Your task to perform on an android device: Open Maps and search for coffee Image 0: 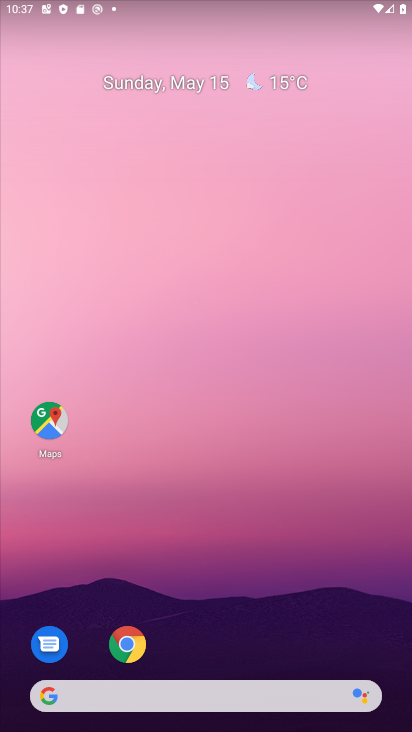
Step 0: click (44, 433)
Your task to perform on an android device: Open Maps and search for coffee Image 1: 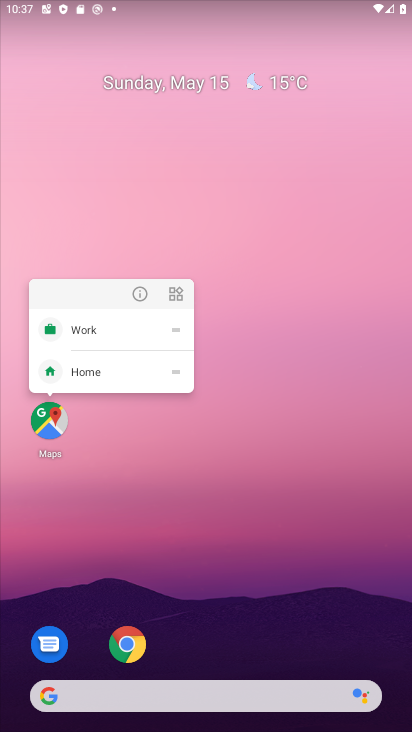
Step 1: click (43, 407)
Your task to perform on an android device: Open Maps and search for coffee Image 2: 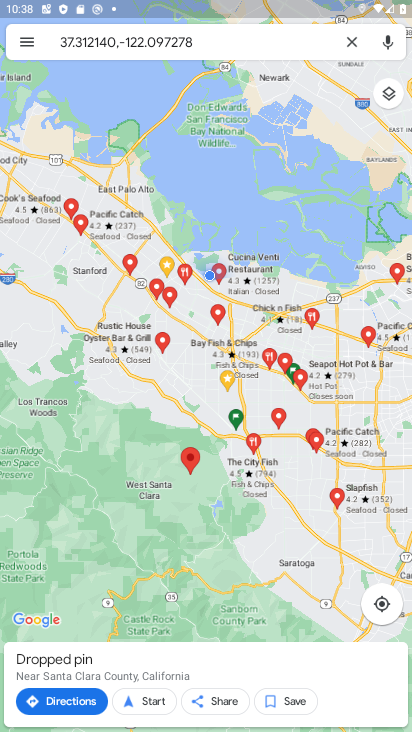
Step 2: click (352, 43)
Your task to perform on an android device: Open Maps and search for coffee Image 3: 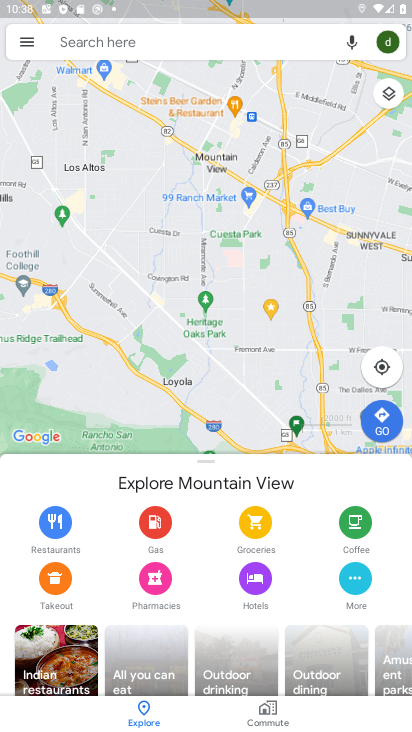
Step 3: click (134, 41)
Your task to perform on an android device: Open Maps and search for coffee Image 4: 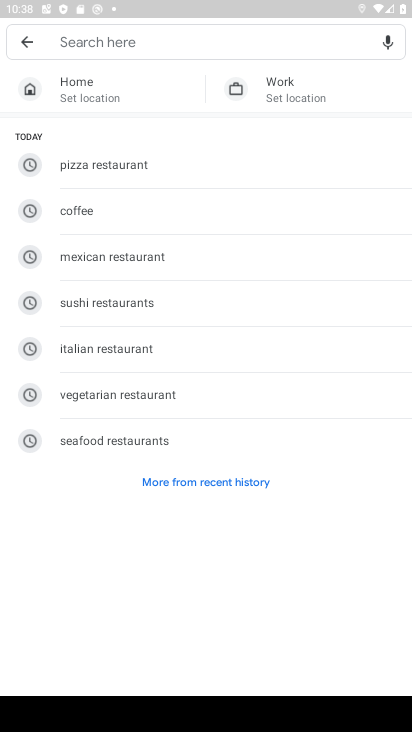
Step 4: click (92, 212)
Your task to perform on an android device: Open Maps and search for coffee Image 5: 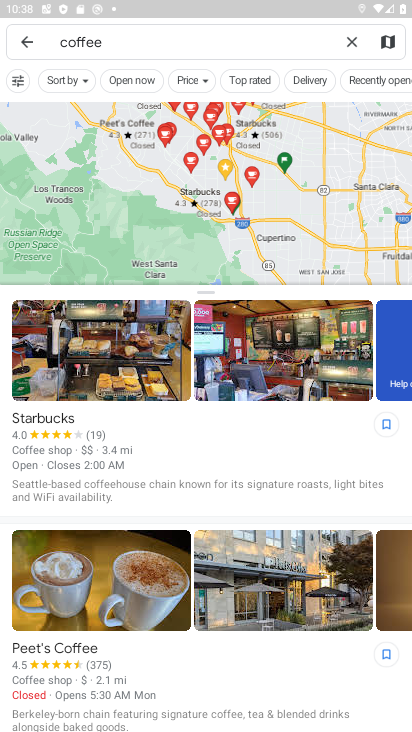
Step 5: task complete